Your task to perform on an android device: find snoozed emails in the gmail app Image 0: 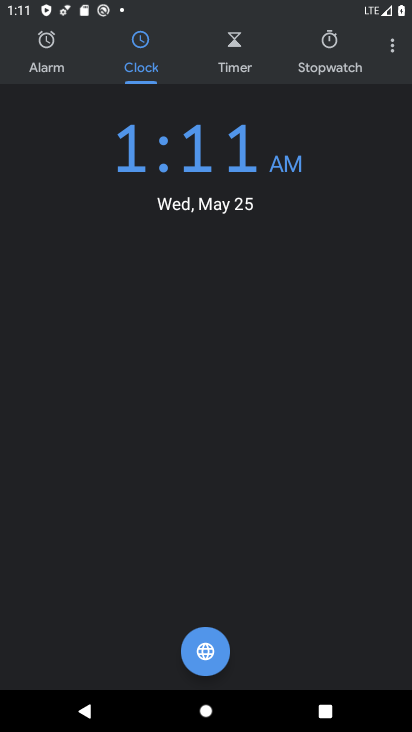
Step 0: press home button
Your task to perform on an android device: find snoozed emails in the gmail app Image 1: 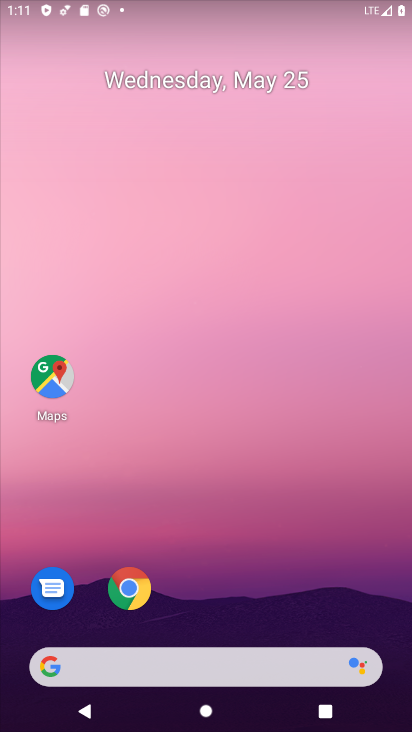
Step 1: drag from (298, 611) to (268, 5)
Your task to perform on an android device: find snoozed emails in the gmail app Image 2: 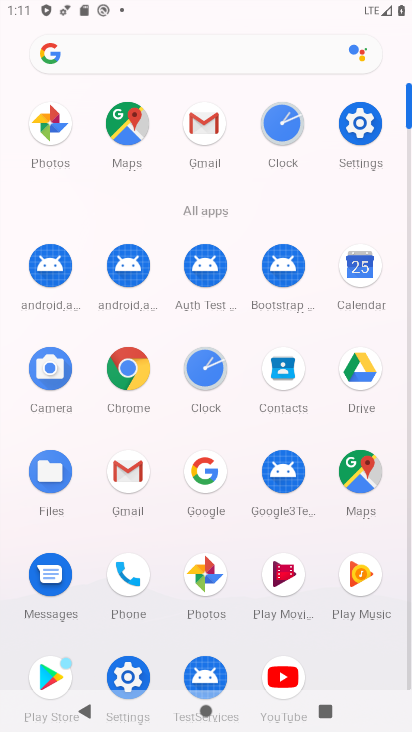
Step 2: click (202, 130)
Your task to perform on an android device: find snoozed emails in the gmail app Image 3: 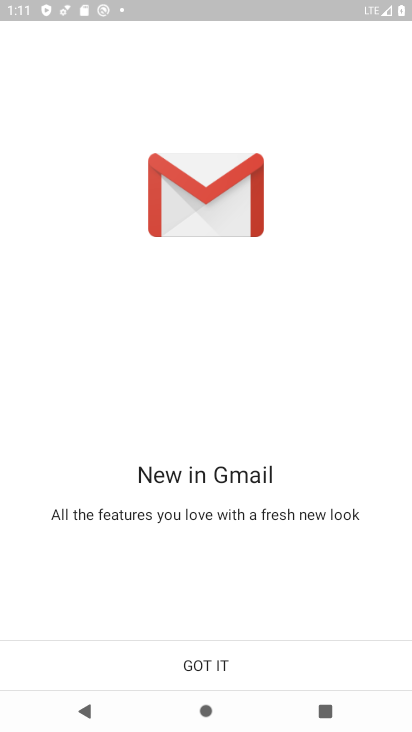
Step 3: click (195, 666)
Your task to perform on an android device: find snoozed emails in the gmail app Image 4: 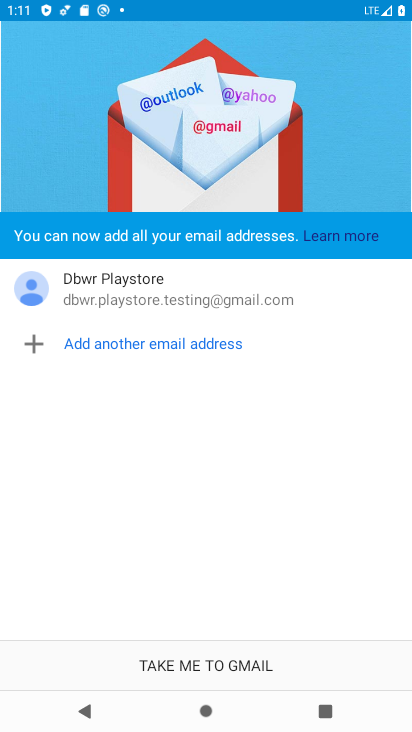
Step 4: click (195, 666)
Your task to perform on an android device: find snoozed emails in the gmail app Image 5: 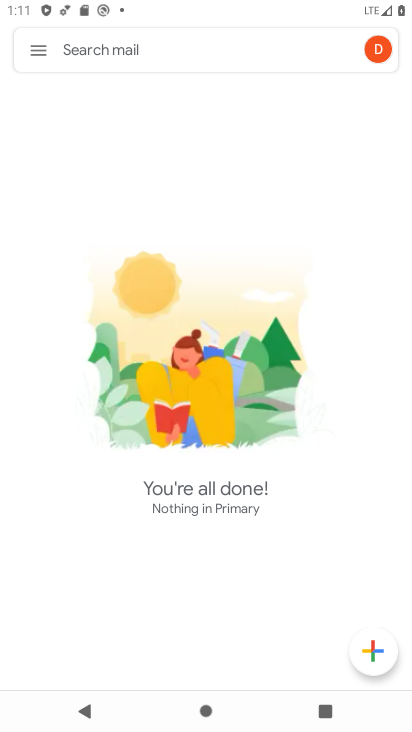
Step 5: click (35, 52)
Your task to perform on an android device: find snoozed emails in the gmail app Image 6: 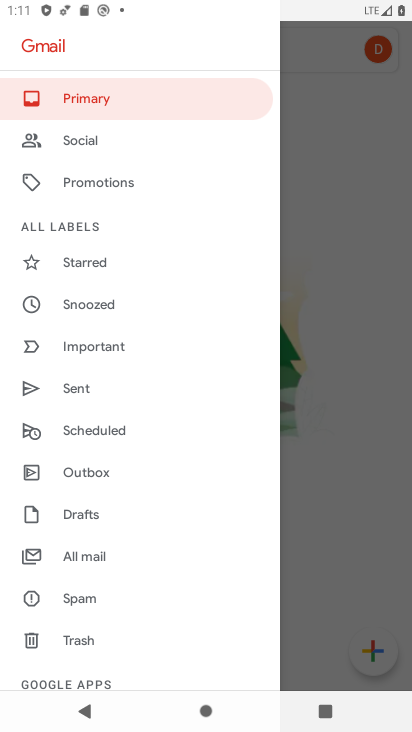
Step 6: click (84, 306)
Your task to perform on an android device: find snoozed emails in the gmail app Image 7: 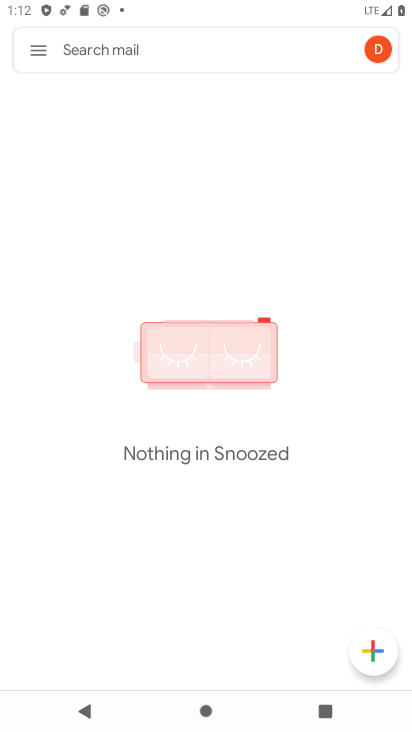
Step 7: task complete